Your task to perform on an android device: turn off smart reply in the gmail app Image 0: 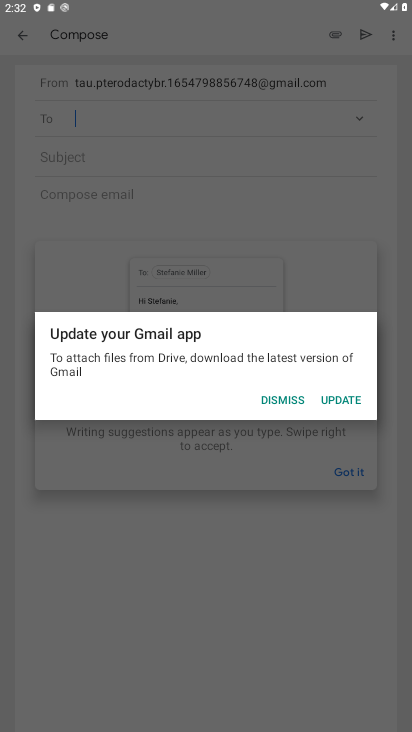
Step 0: press home button
Your task to perform on an android device: turn off smart reply in the gmail app Image 1: 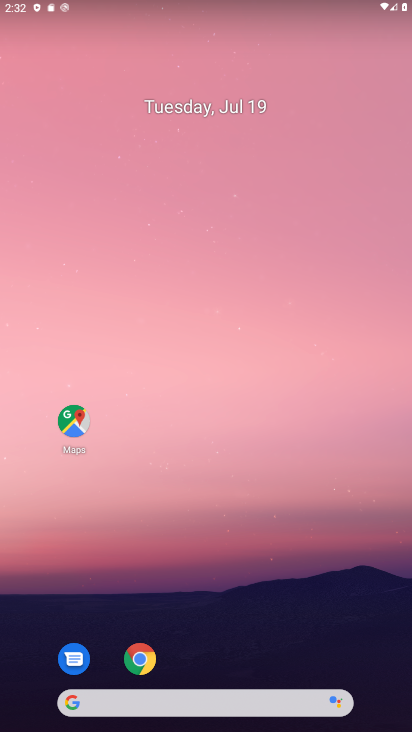
Step 1: drag from (175, 697) to (187, 274)
Your task to perform on an android device: turn off smart reply in the gmail app Image 2: 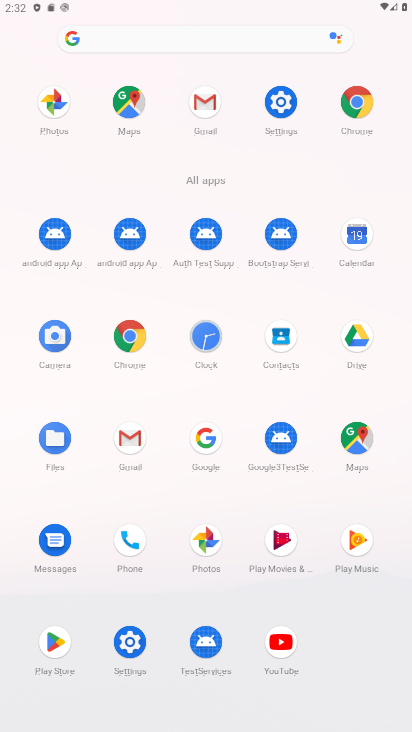
Step 2: click (205, 101)
Your task to perform on an android device: turn off smart reply in the gmail app Image 3: 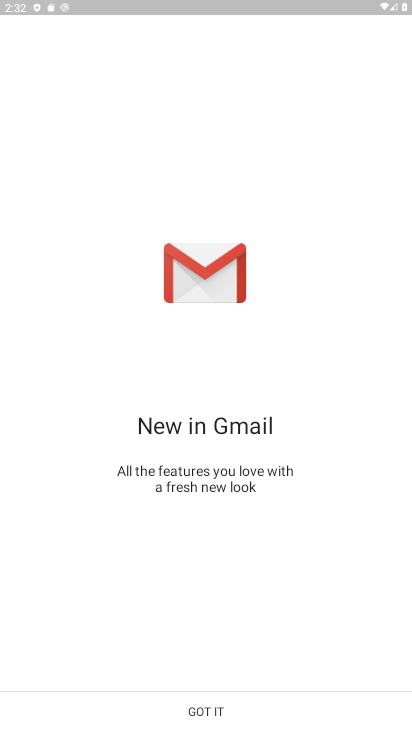
Step 3: click (202, 710)
Your task to perform on an android device: turn off smart reply in the gmail app Image 4: 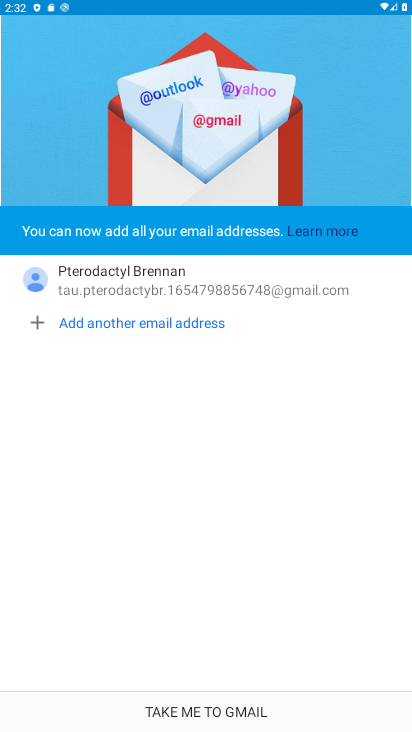
Step 4: click (184, 714)
Your task to perform on an android device: turn off smart reply in the gmail app Image 5: 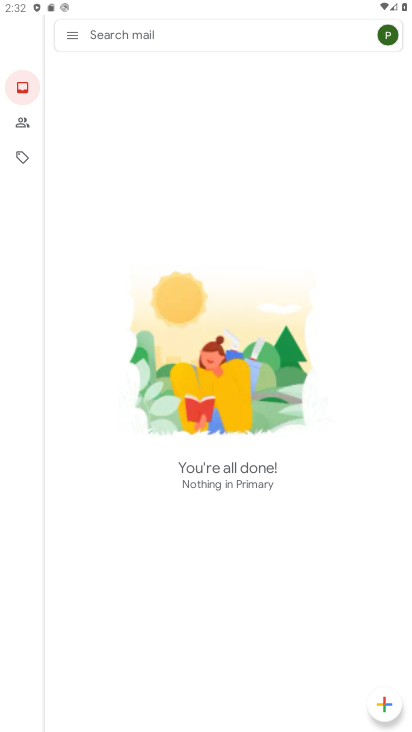
Step 5: click (70, 34)
Your task to perform on an android device: turn off smart reply in the gmail app Image 6: 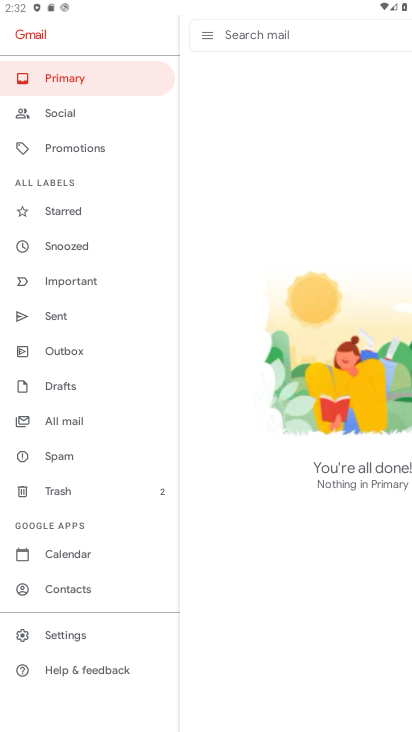
Step 6: click (66, 637)
Your task to perform on an android device: turn off smart reply in the gmail app Image 7: 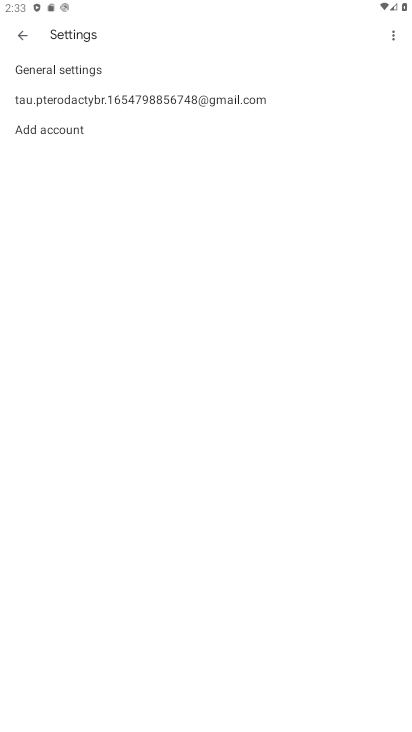
Step 7: click (89, 100)
Your task to perform on an android device: turn off smart reply in the gmail app Image 8: 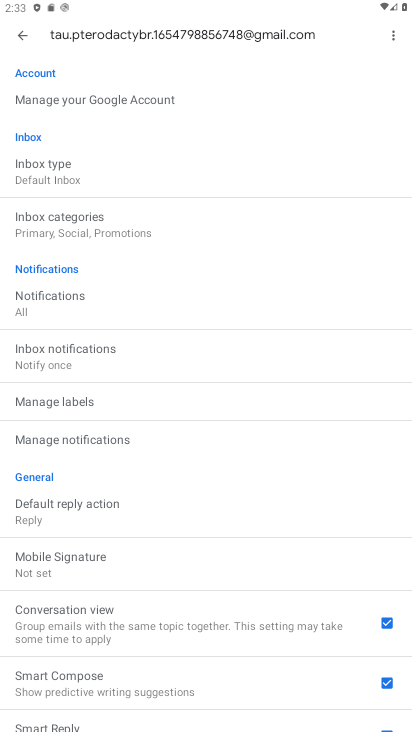
Step 8: drag from (99, 575) to (192, 440)
Your task to perform on an android device: turn off smart reply in the gmail app Image 9: 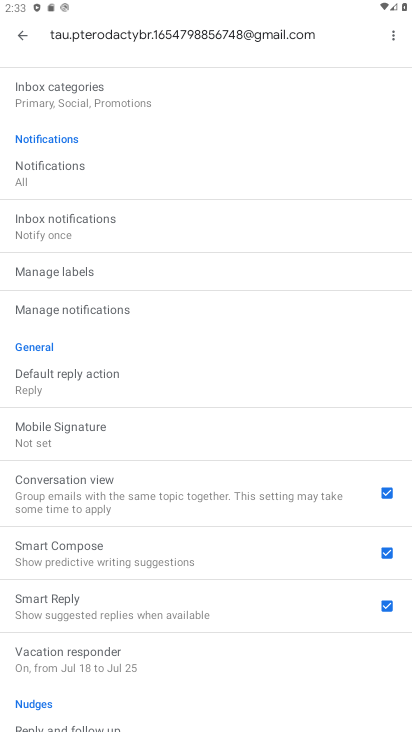
Step 9: click (386, 607)
Your task to perform on an android device: turn off smart reply in the gmail app Image 10: 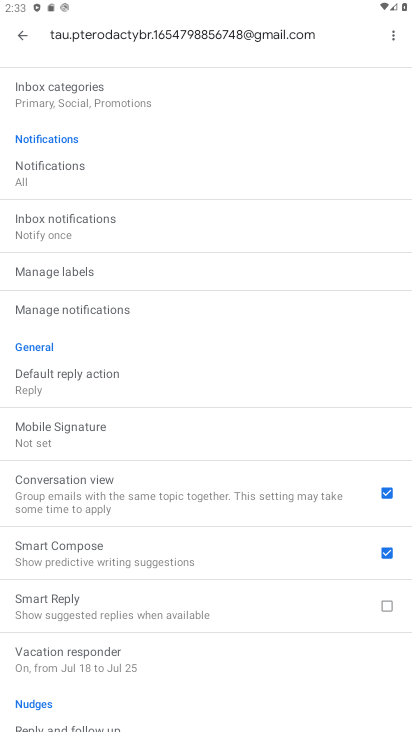
Step 10: task complete